Your task to perform on an android device: toggle location history Image 0: 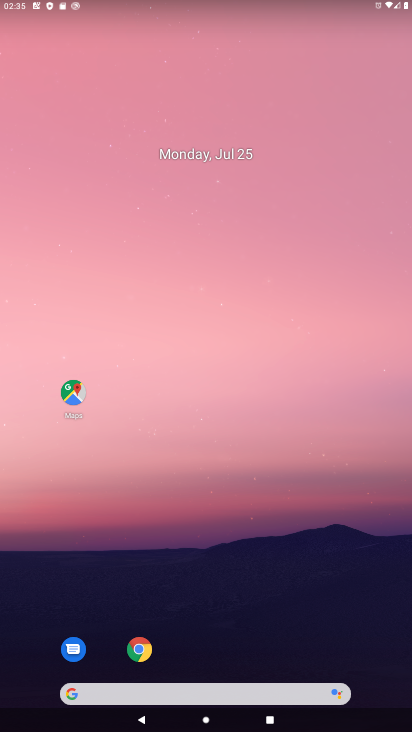
Step 0: click (71, 395)
Your task to perform on an android device: toggle location history Image 1: 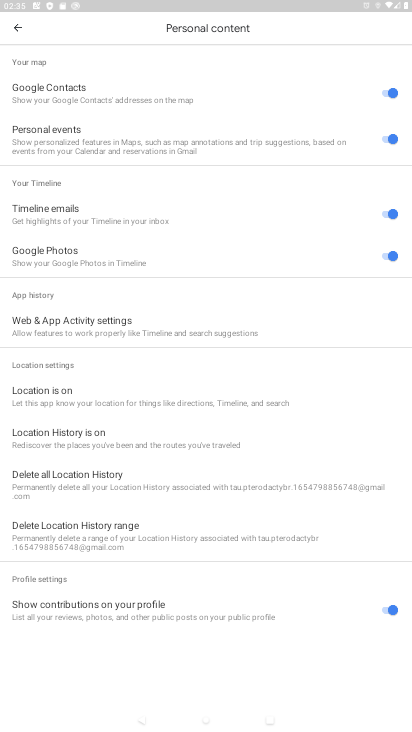
Step 1: click (54, 430)
Your task to perform on an android device: toggle location history Image 2: 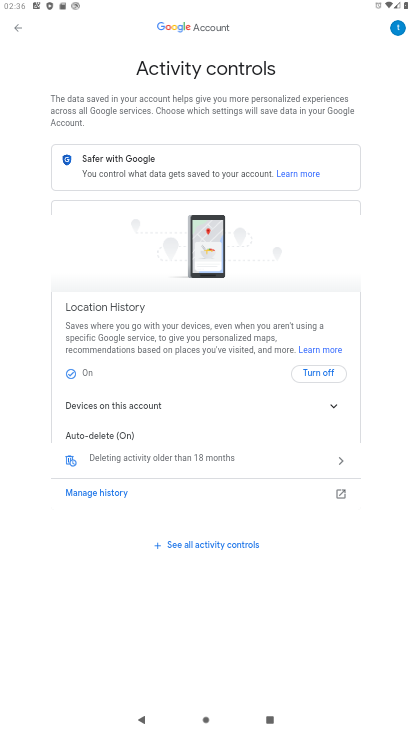
Step 2: click (313, 370)
Your task to perform on an android device: toggle location history Image 3: 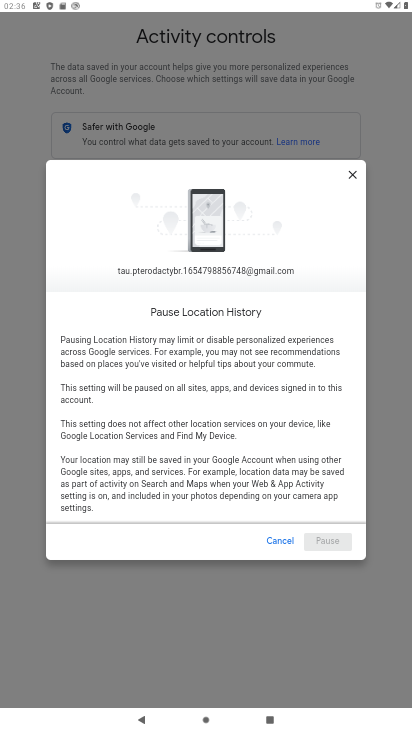
Step 3: drag from (318, 508) to (258, 186)
Your task to perform on an android device: toggle location history Image 4: 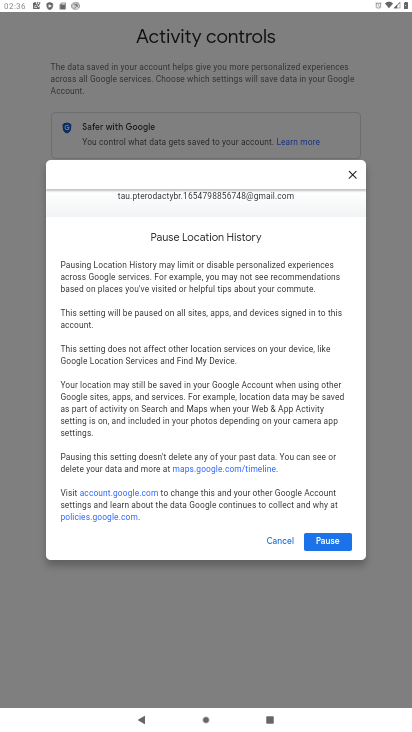
Step 4: click (324, 545)
Your task to perform on an android device: toggle location history Image 5: 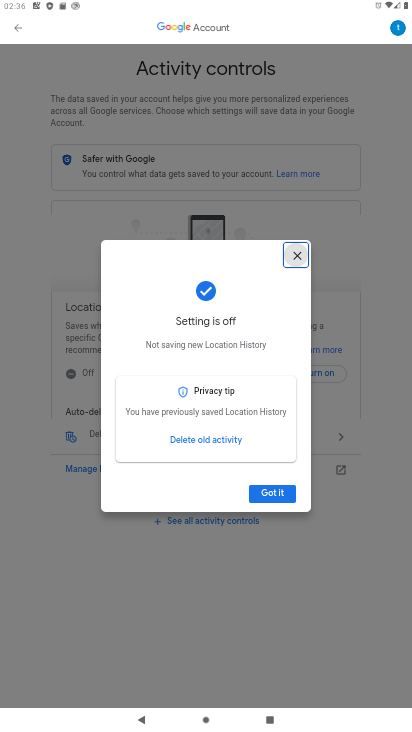
Step 5: click (270, 492)
Your task to perform on an android device: toggle location history Image 6: 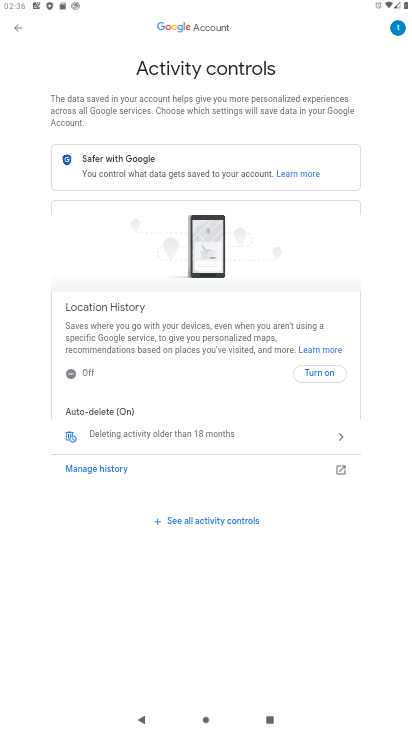
Step 6: task complete